Your task to perform on an android device: toggle wifi Image 0: 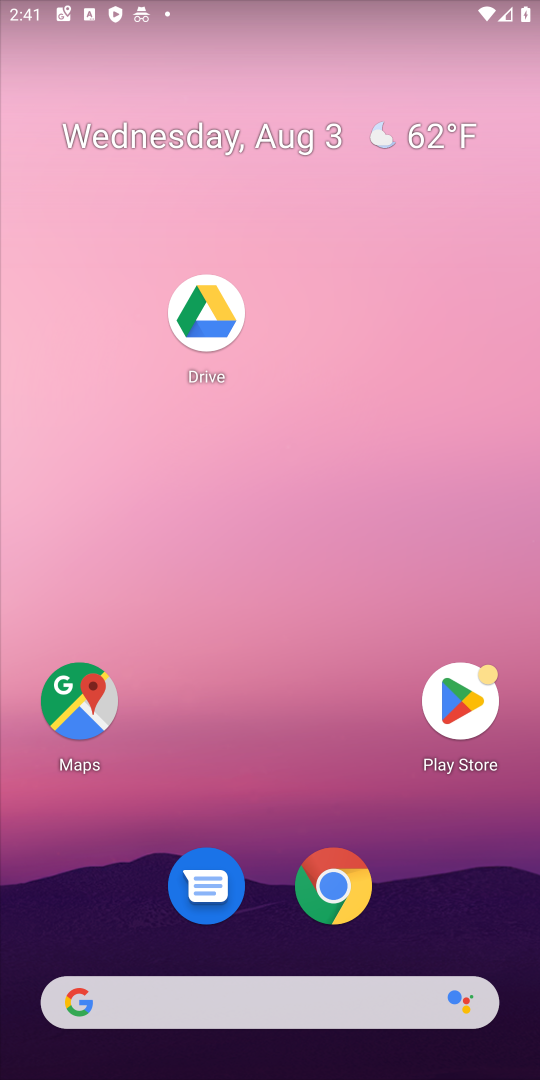
Step 0: drag from (378, 627) to (451, 86)
Your task to perform on an android device: toggle wifi Image 1: 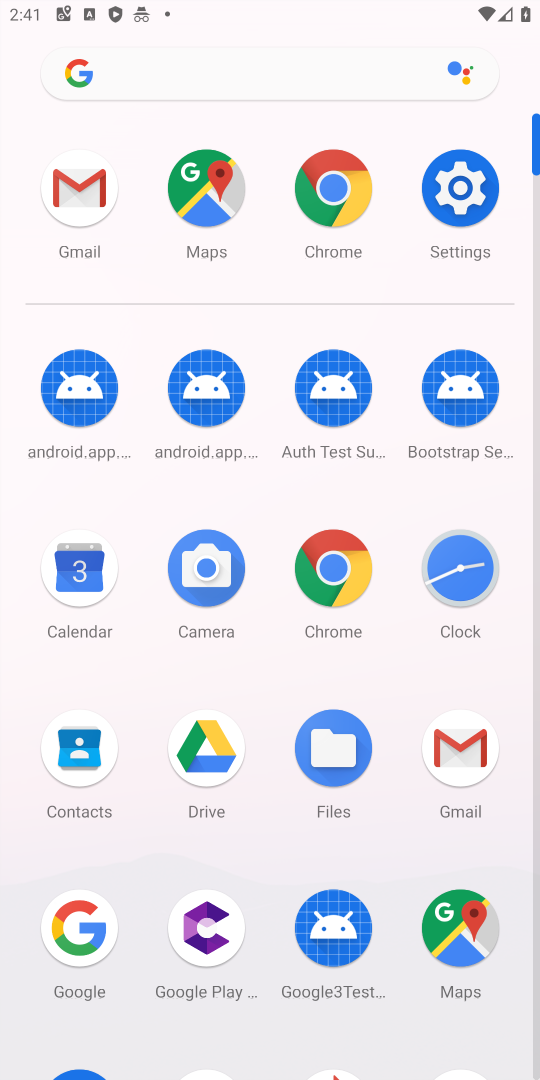
Step 1: click (477, 184)
Your task to perform on an android device: toggle wifi Image 2: 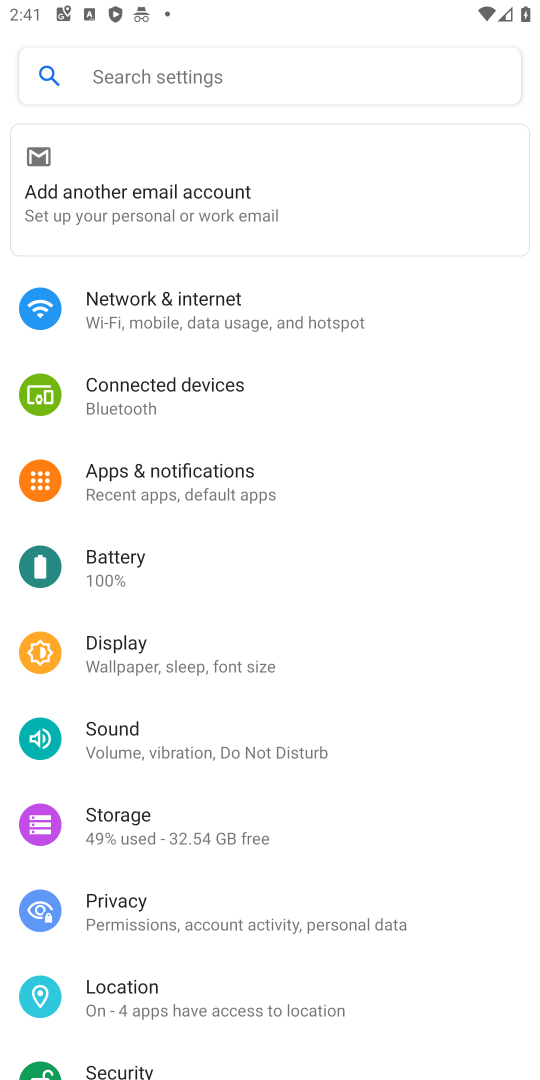
Step 2: click (208, 310)
Your task to perform on an android device: toggle wifi Image 3: 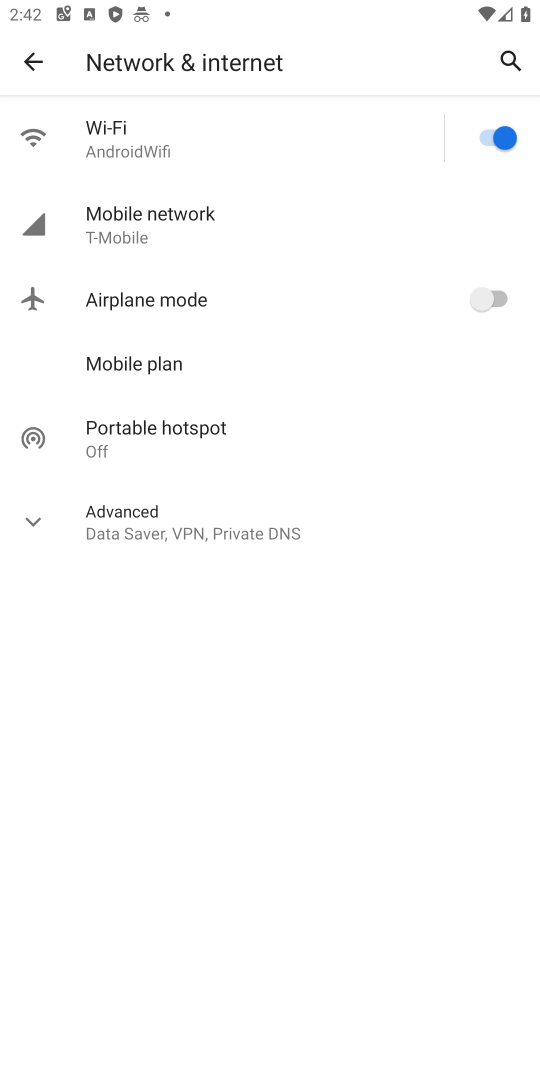
Step 3: click (494, 134)
Your task to perform on an android device: toggle wifi Image 4: 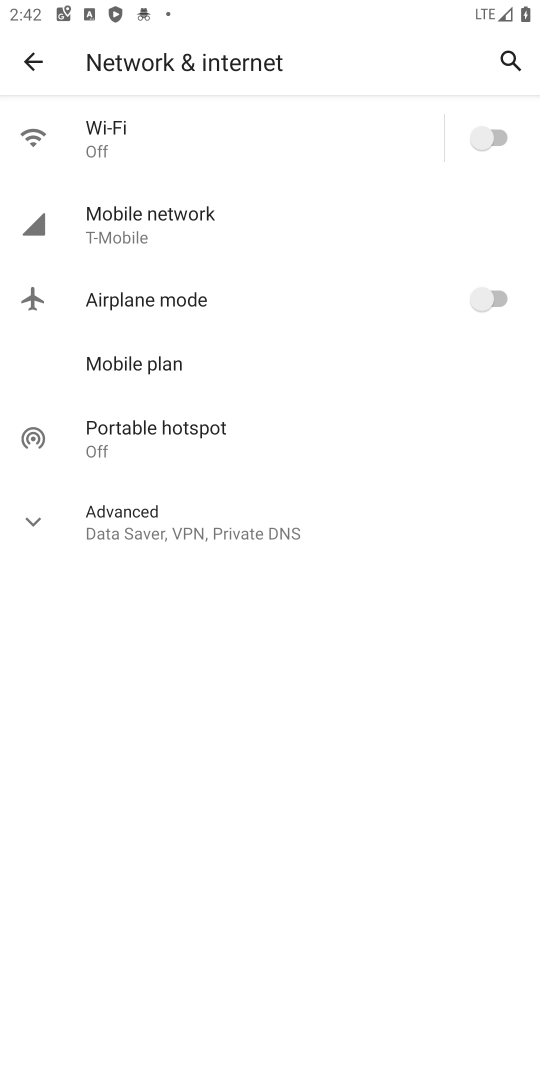
Step 4: task complete